Your task to perform on an android device: Open Chrome and go to settings Image 0: 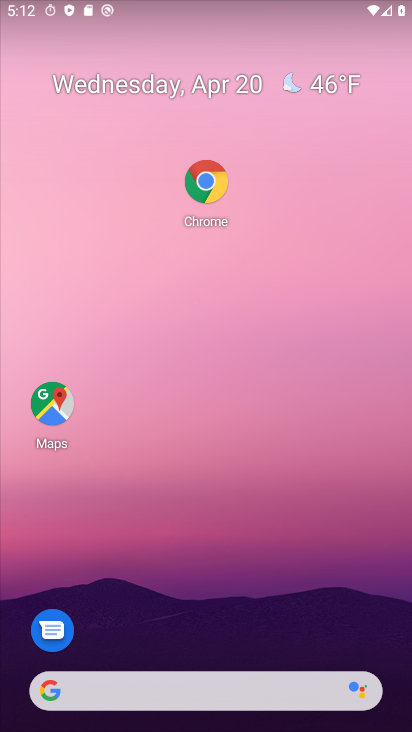
Step 0: drag from (239, 576) to (368, 209)
Your task to perform on an android device: Open Chrome and go to settings Image 1: 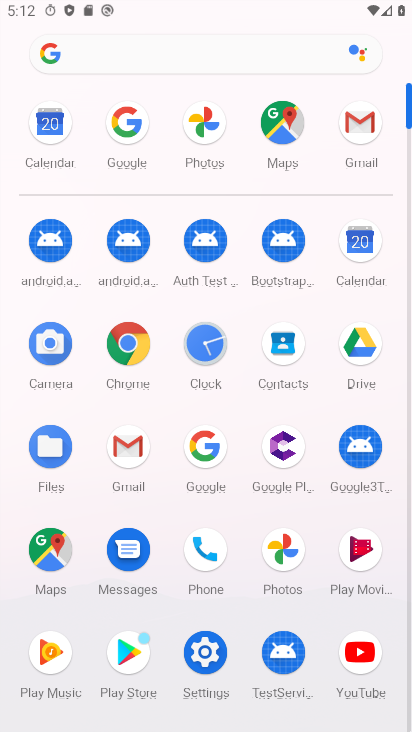
Step 1: click (121, 352)
Your task to perform on an android device: Open Chrome and go to settings Image 2: 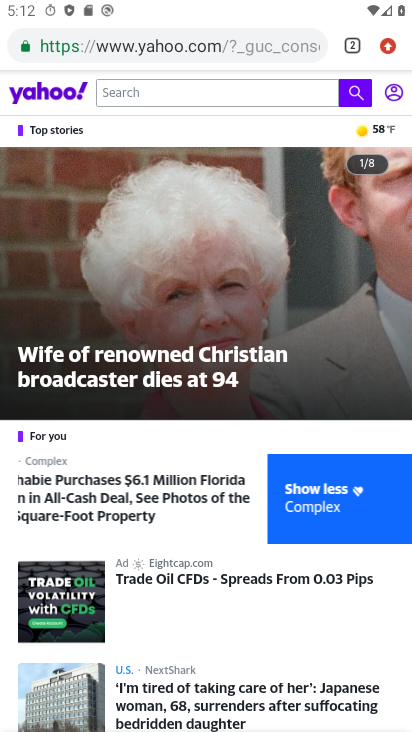
Step 2: click (394, 44)
Your task to perform on an android device: Open Chrome and go to settings Image 3: 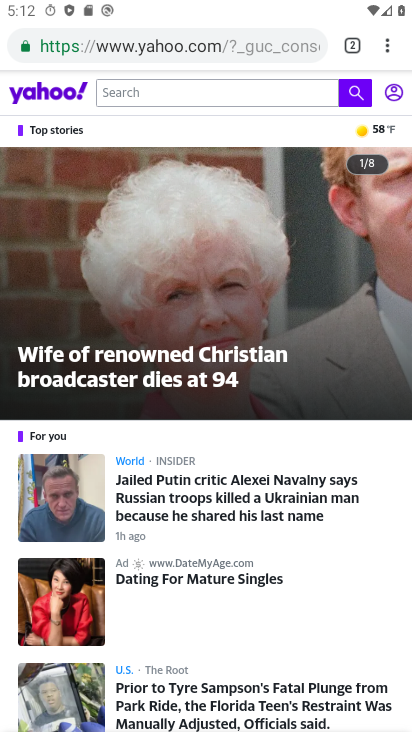
Step 3: click (387, 38)
Your task to perform on an android device: Open Chrome and go to settings Image 4: 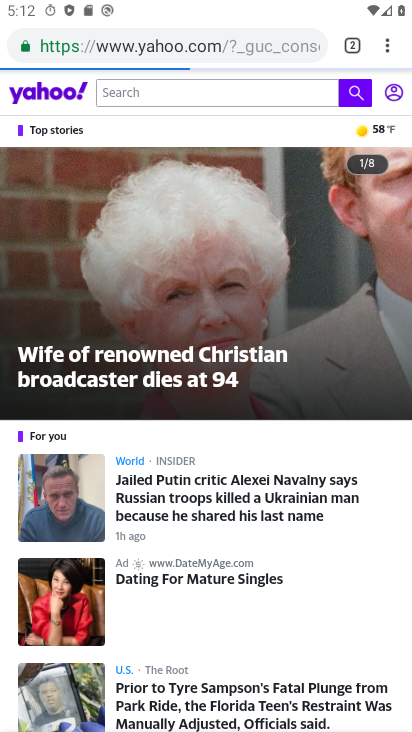
Step 4: click (387, 38)
Your task to perform on an android device: Open Chrome and go to settings Image 5: 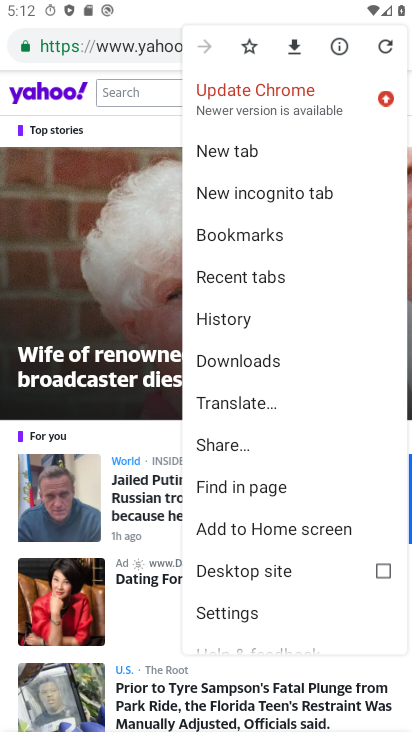
Step 5: click (241, 612)
Your task to perform on an android device: Open Chrome and go to settings Image 6: 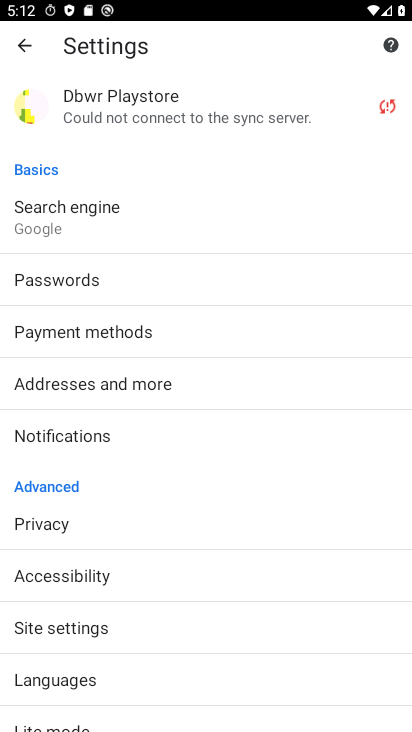
Step 6: task complete